Your task to perform on an android device: show emergency info Image 0: 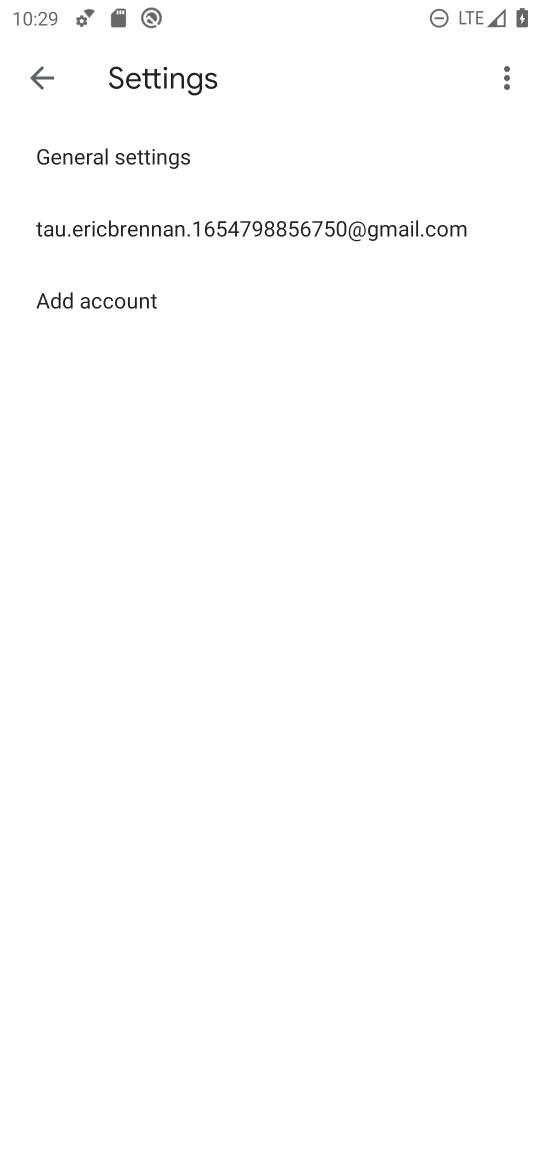
Step 0: press home button
Your task to perform on an android device: show emergency info Image 1: 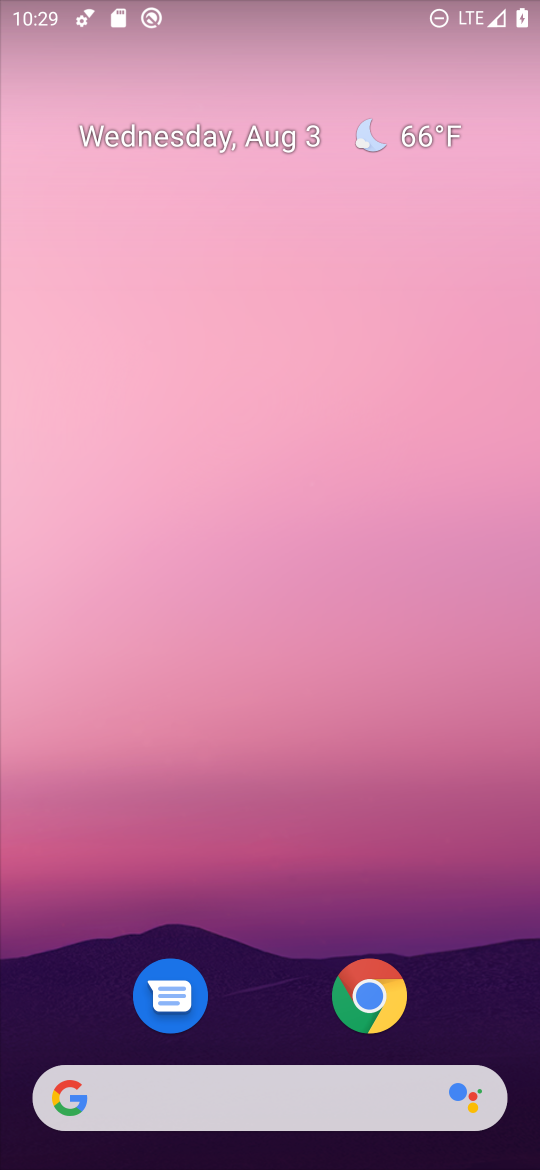
Step 1: drag from (248, 899) to (258, 0)
Your task to perform on an android device: show emergency info Image 2: 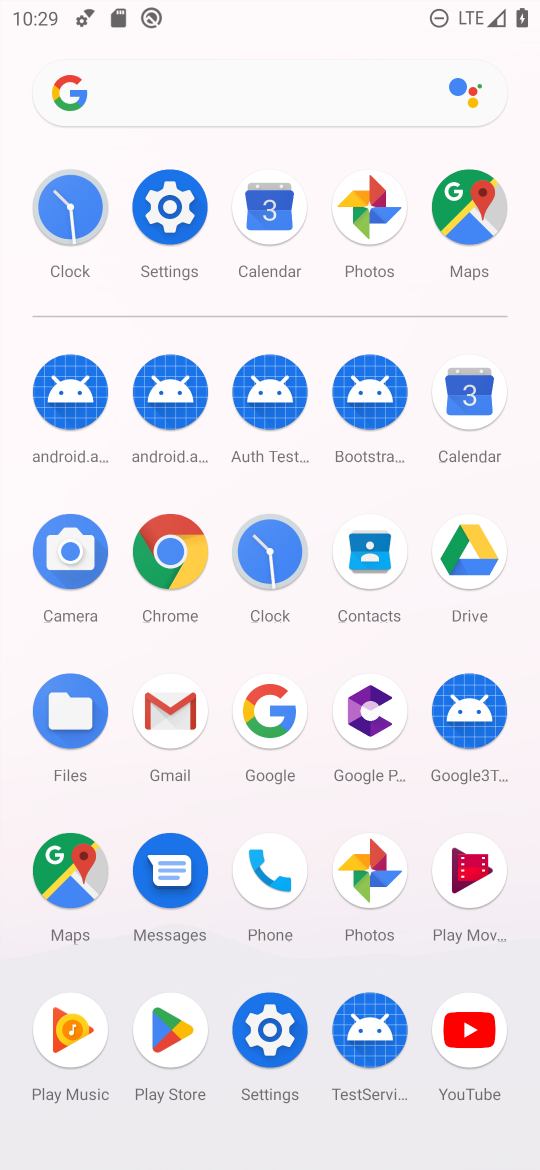
Step 2: click (174, 210)
Your task to perform on an android device: show emergency info Image 3: 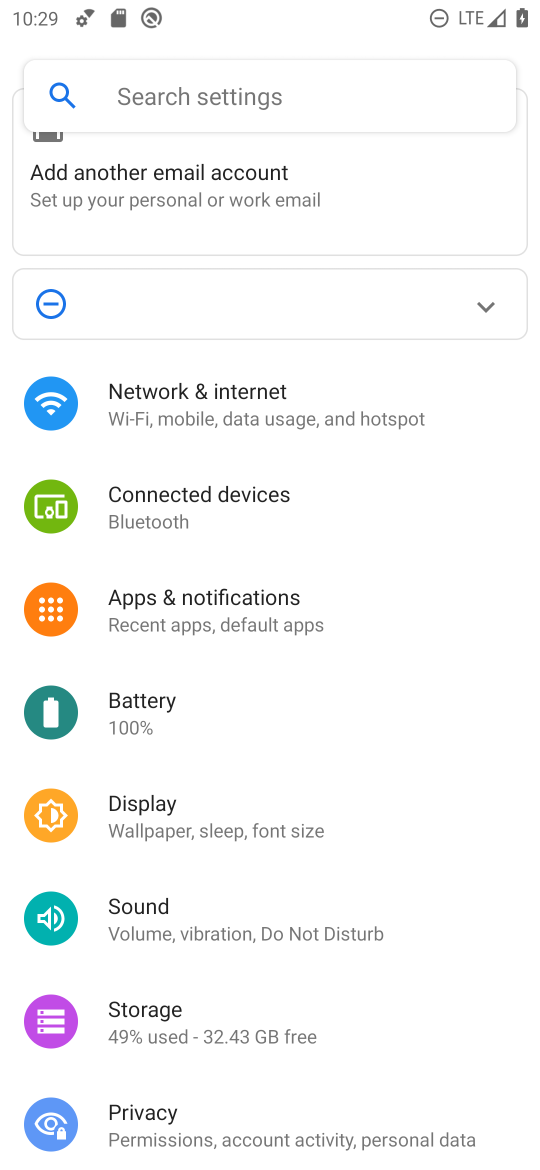
Step 3: drag from (281, 980) to (308, 1)
Your task to perform on an android device: show emergency info Image 4: 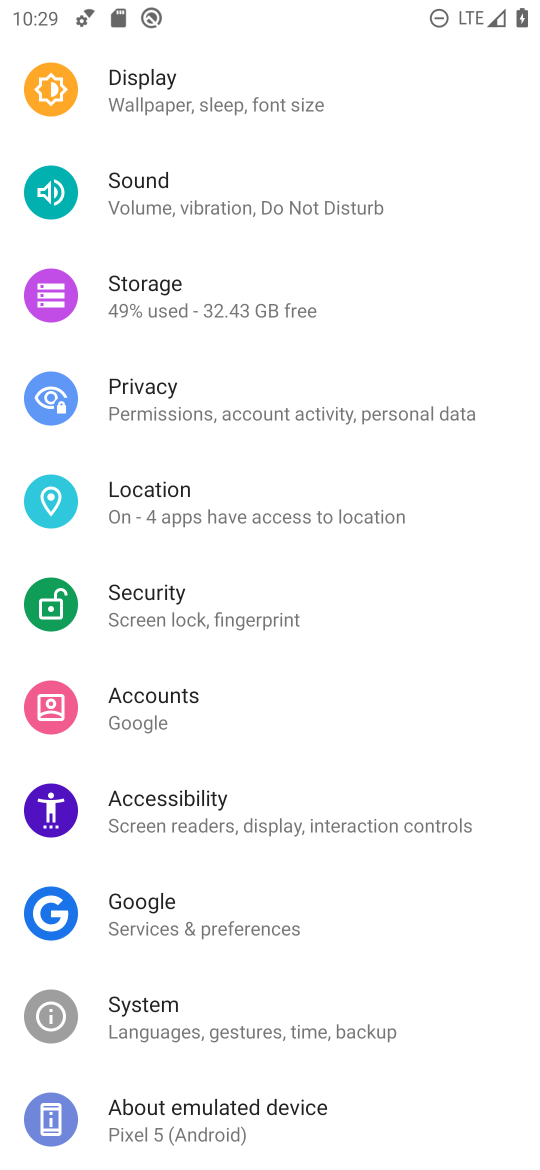
Step 4: click (246, 1114)
Your task to perform on an android device: show emergency info Image 5: 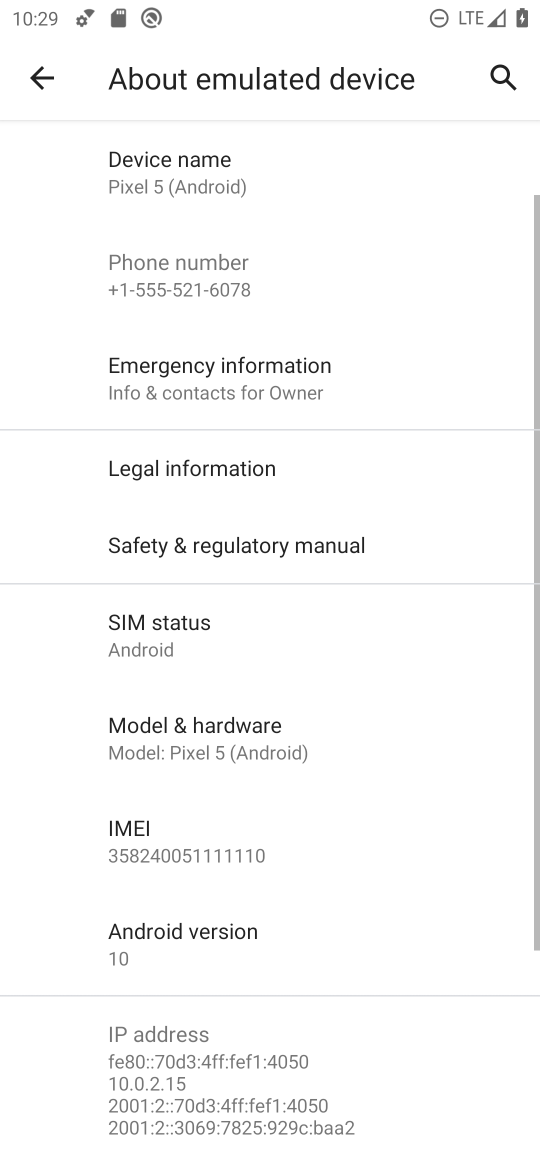
Step 5: click (256, 378)
Your task to perform on an android device: show emergency info Image 6: 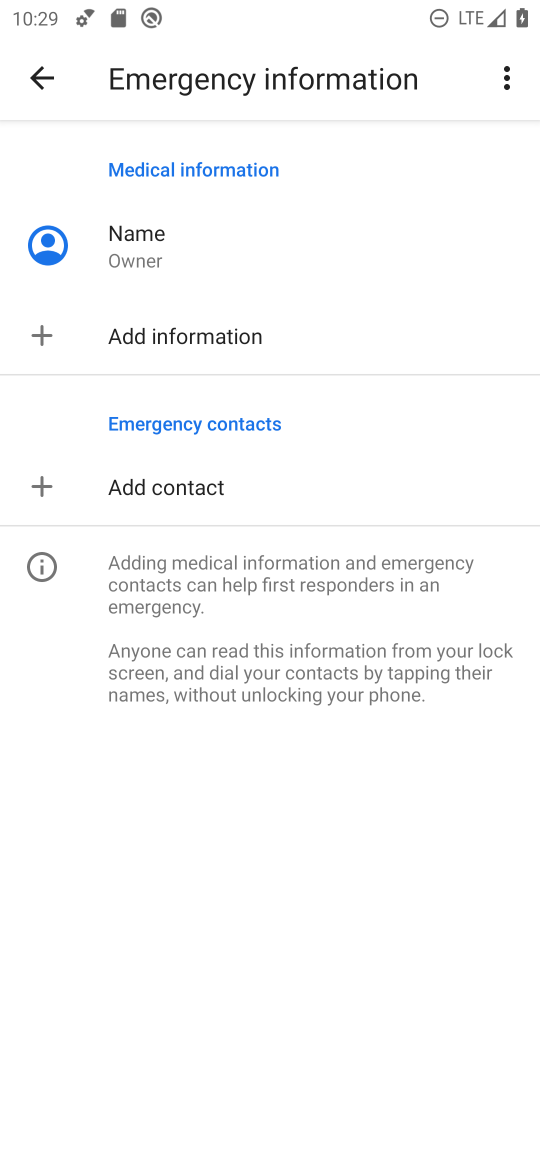
Step 6: task complete